Your task to perform on an android device: change notification settings in the gmail app Image 0: 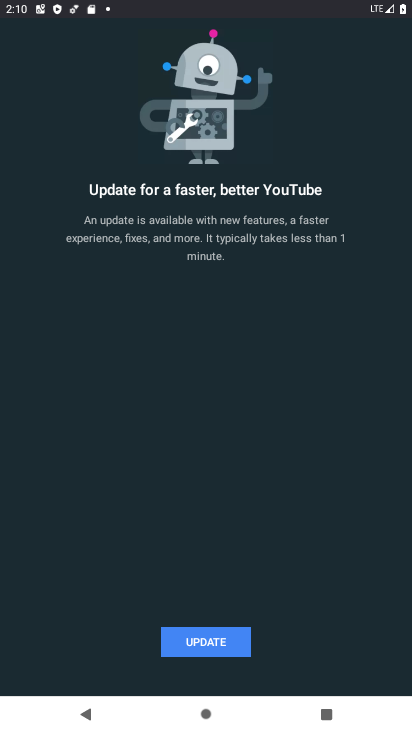
Step 0: press home button
Your task to perform on an android device: change notification settings in the gmail app Image 1: 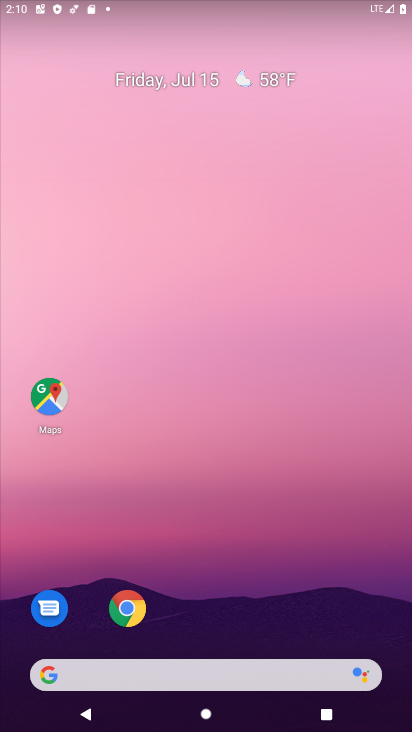
Step 1: drag from (257, 612) to (161, 18)
Your task to perform on an android device: change notification settings in the gmail app Image 2: 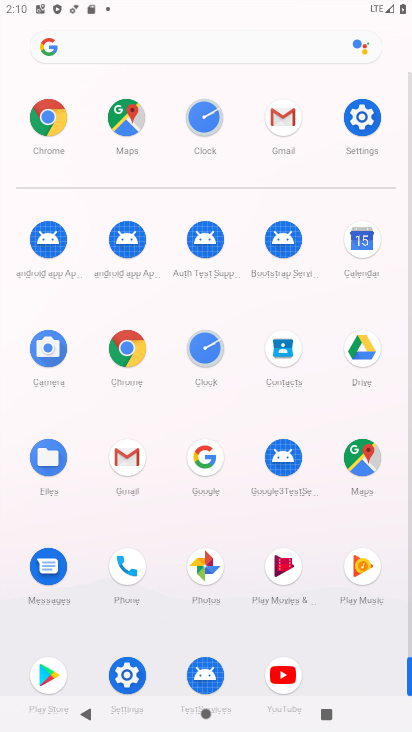
Step 2: click (112, 449)
Your task to perform on an android device: change notification settings in the gmail app Image 3: 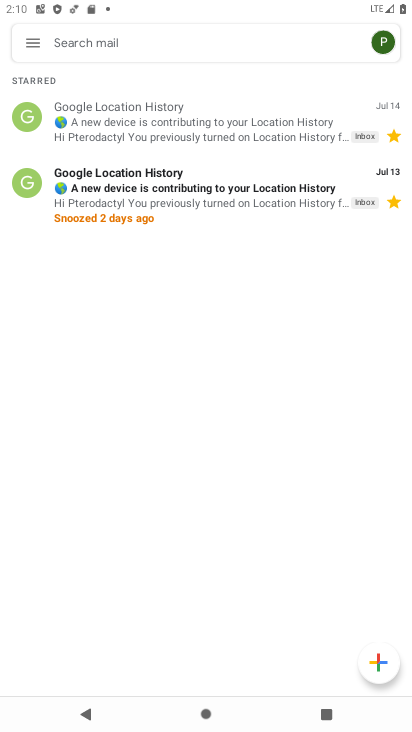
Step 3: press home button
Your task to perform on an android device: change notification settings in the gmail app Image 4: 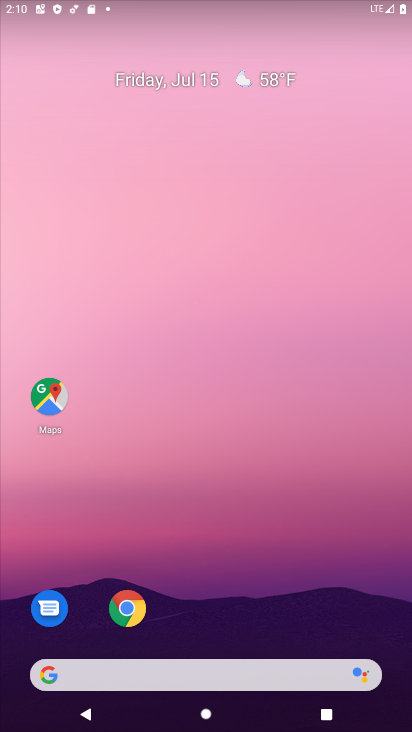
Step 4: drag from (271, 589) to (273, 45)
Your task to perform on an android device: change notification settings in the gmail app Image 5: 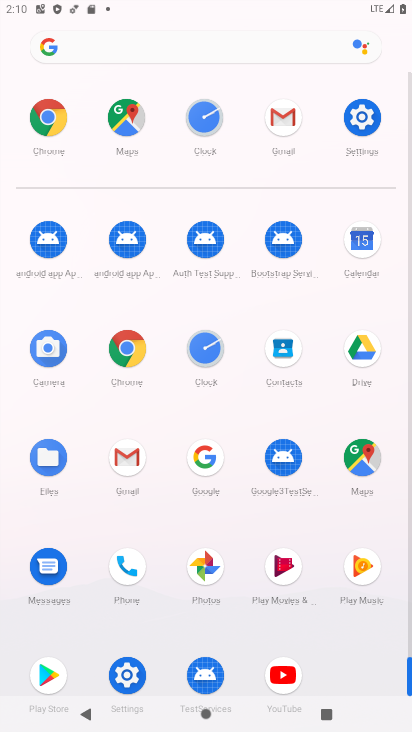
Step 5: click (124, 457)
Your task to perform on an android device: change notification settings in the gmail app Image 6: 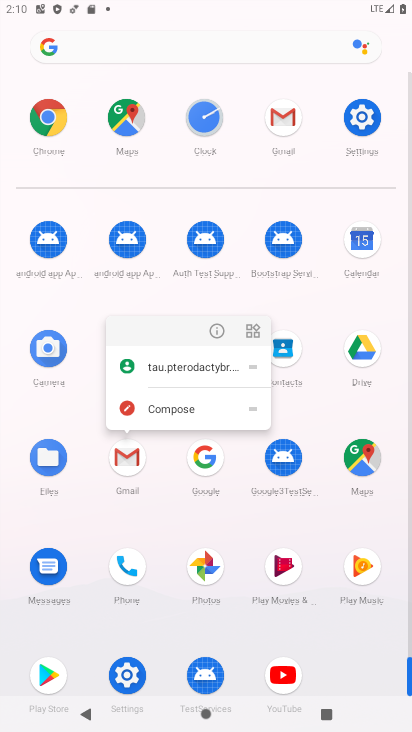
Step 6: click (221, 325)
Your task to perform on an android device: change notification settings in the gmail app Image 7: 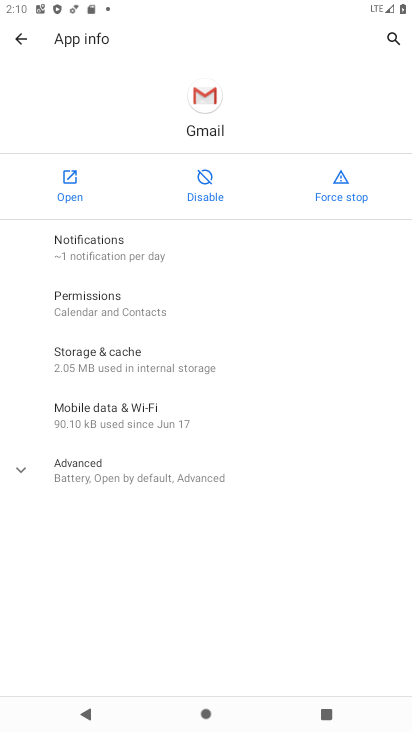
Step 7: click (130, 253)
Your task to perform on an android device: change notification settings in the gmail app Image 8: 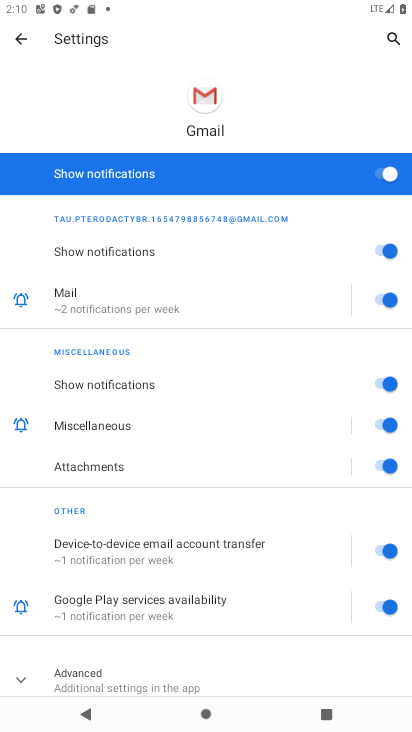
Step 8: click (390, 432)
Your task to perform on an android device: change notification settings in the gmail app Image 9: 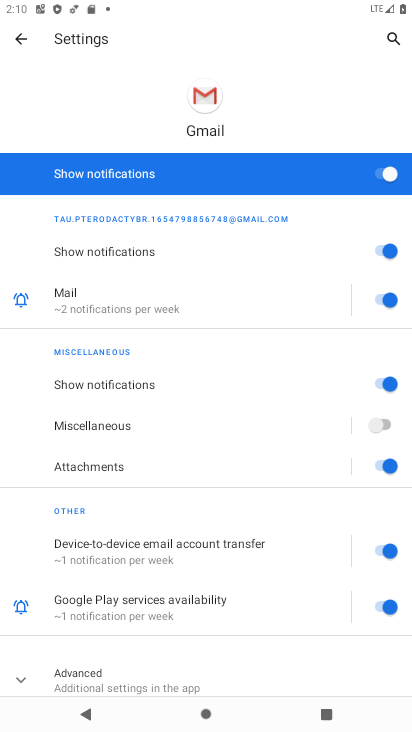
Step 9: task complete